Your task to perform on an android device: Search for vegetarian restaurants on Maps Image 0: 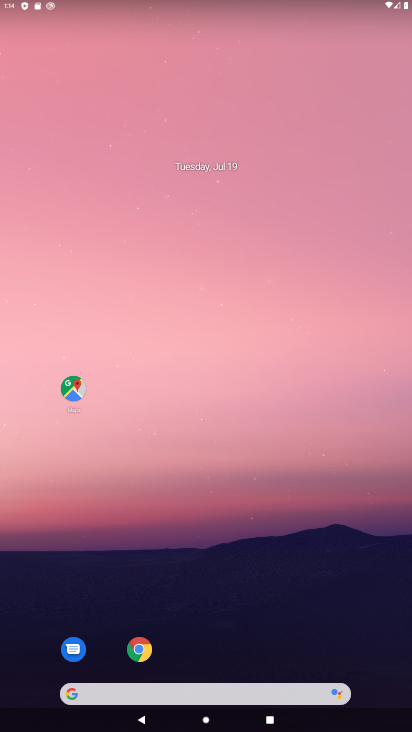
Step 0: click (66, 389)
Your task to perform on an android device: Search for vegetarian restaurants on Maps Image 1: 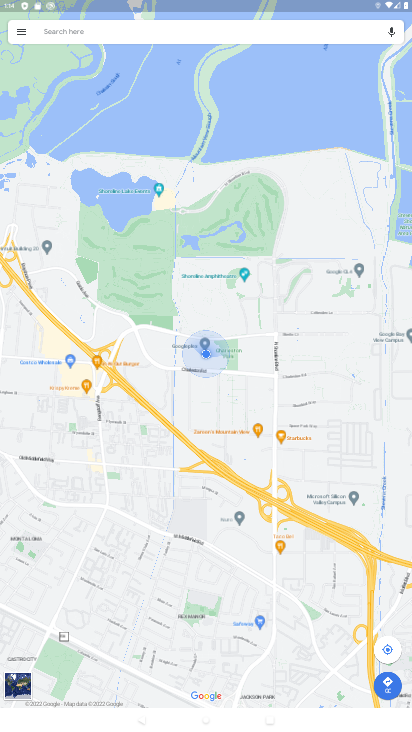
Step 1: click (168, 38)
Your task to perform on an android device: Search for vegetarian restaurants on Maps Image 2: 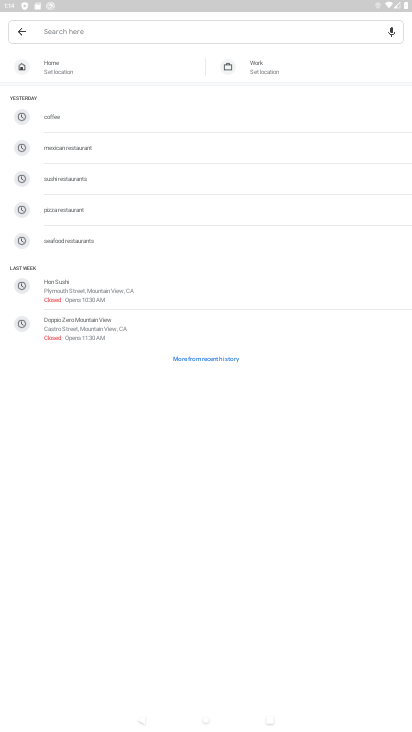
Step 2: type "vegetarian restaurants "
Your task to perform on an android device: Search for vegetarian restaurants on Maps Image 3: 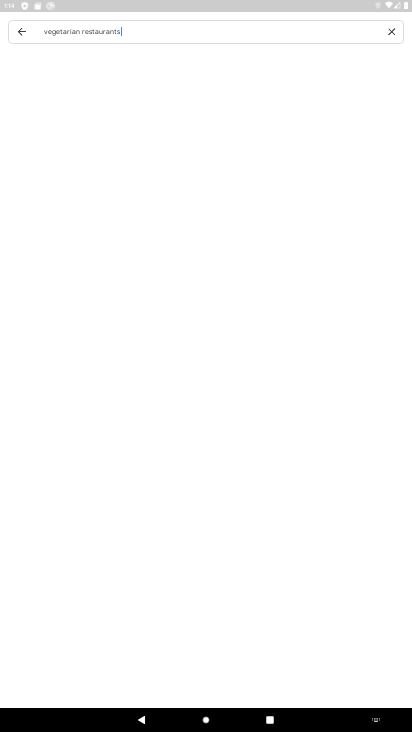
Step 3: press enter
Your task to perform on an android device: Search for vegetarian restaurants on Maps Image 4: 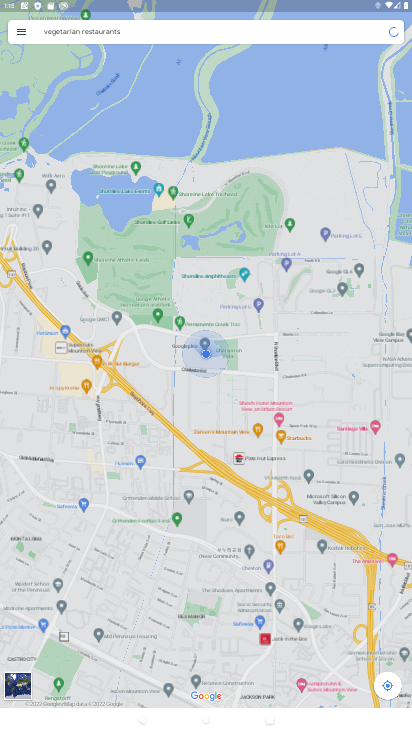
Step 4: task complete